Your task to perform on an android device: What is the news today? Image 0: 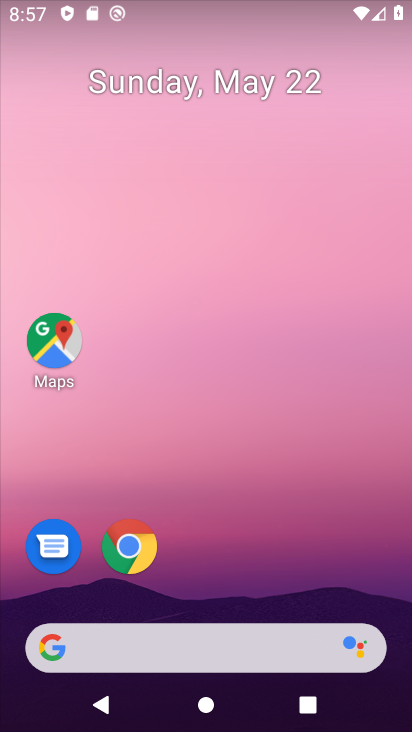
Step 0: click (174, 653)
Your task to perform on an android device: What is the news today? Image 1: 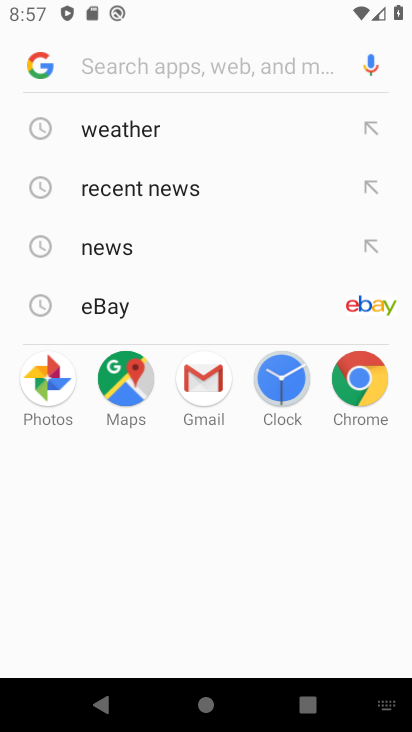
Step 1: click (118, 246)
Your task to perform on an android device: What is the news today? Image 2: 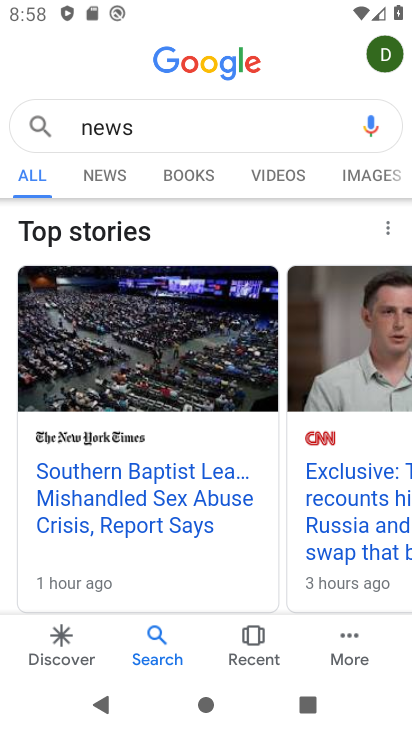
Step 2: task complete